Your task to perform on an android device: Open Google Image 0: 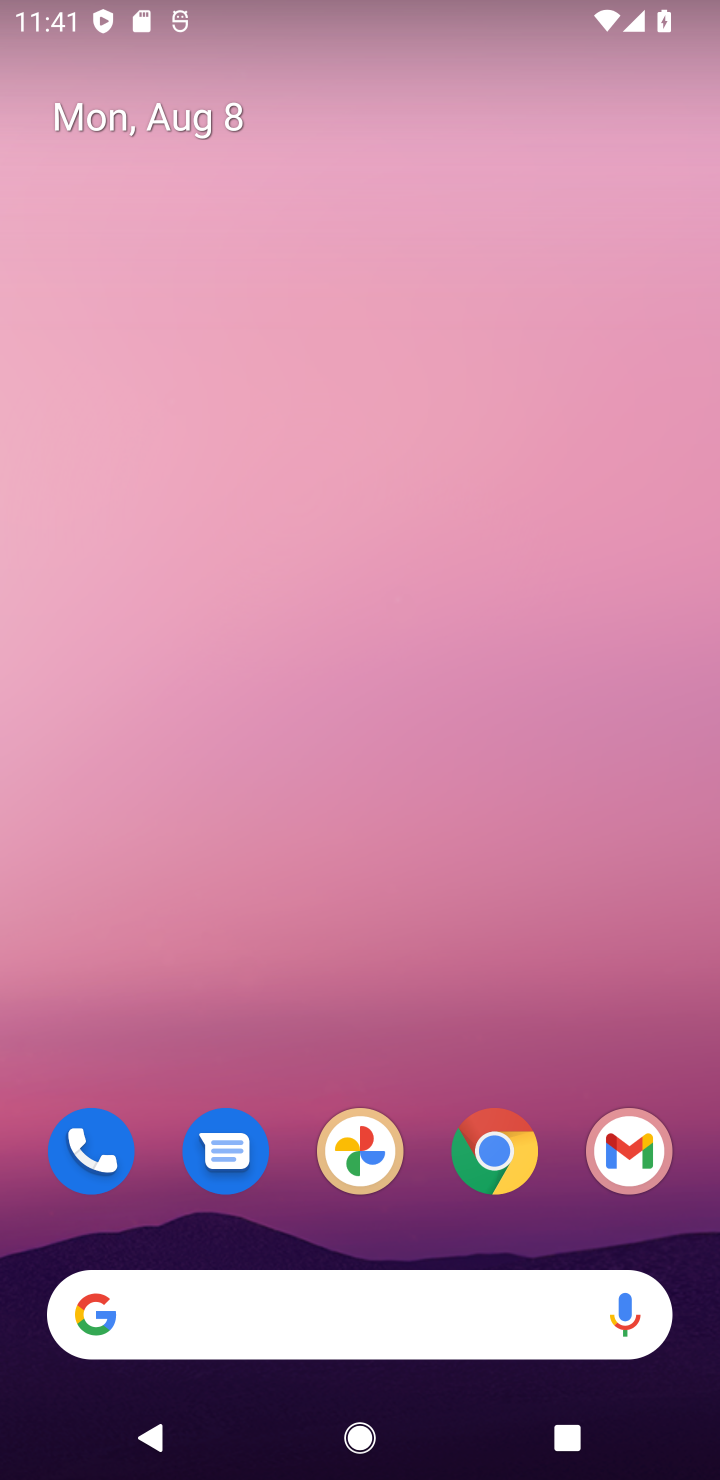
Step 0: drag from (467, 1194) to (266, 319)
Your task to perform on an android device: Open Google Image 1: 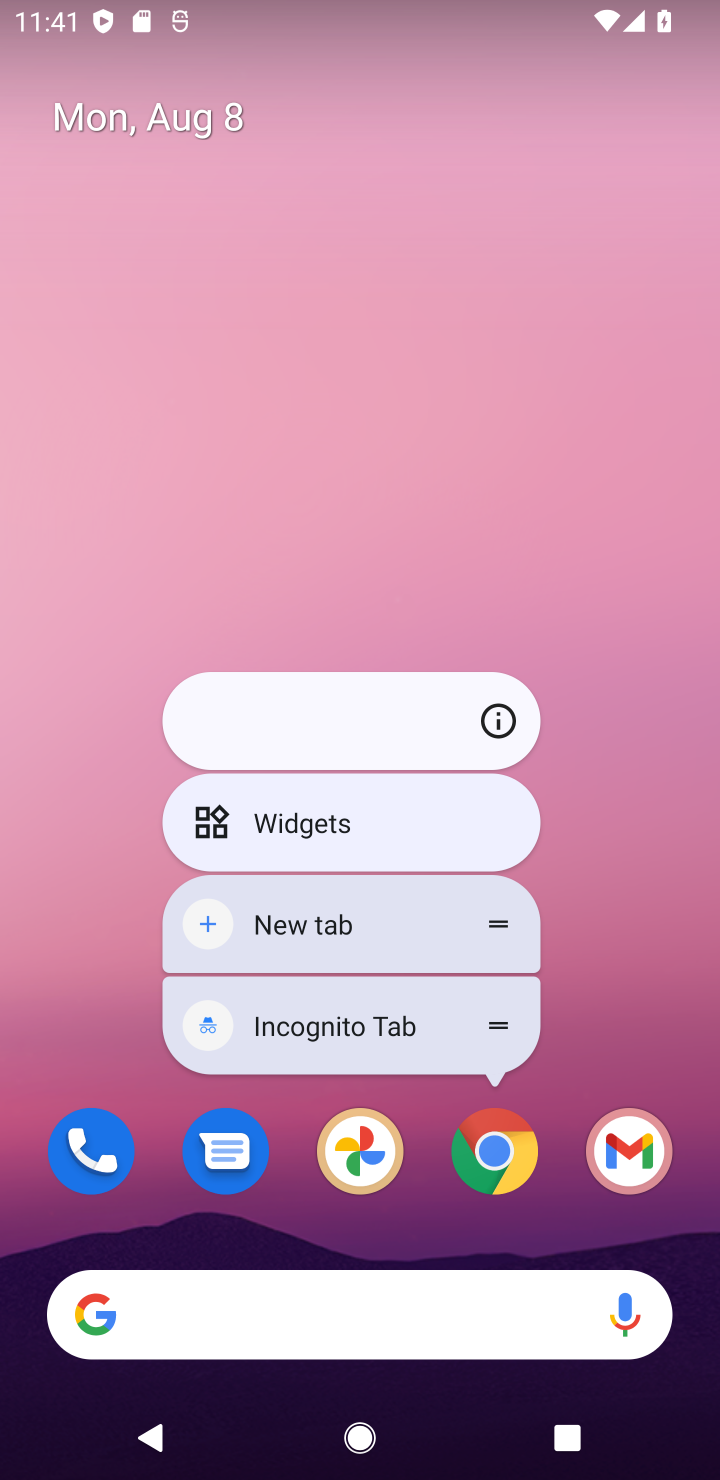
Step 1: drag from (375, 1217) to (252, 573)
Your task to perform on an android device: Open Google Image 2: 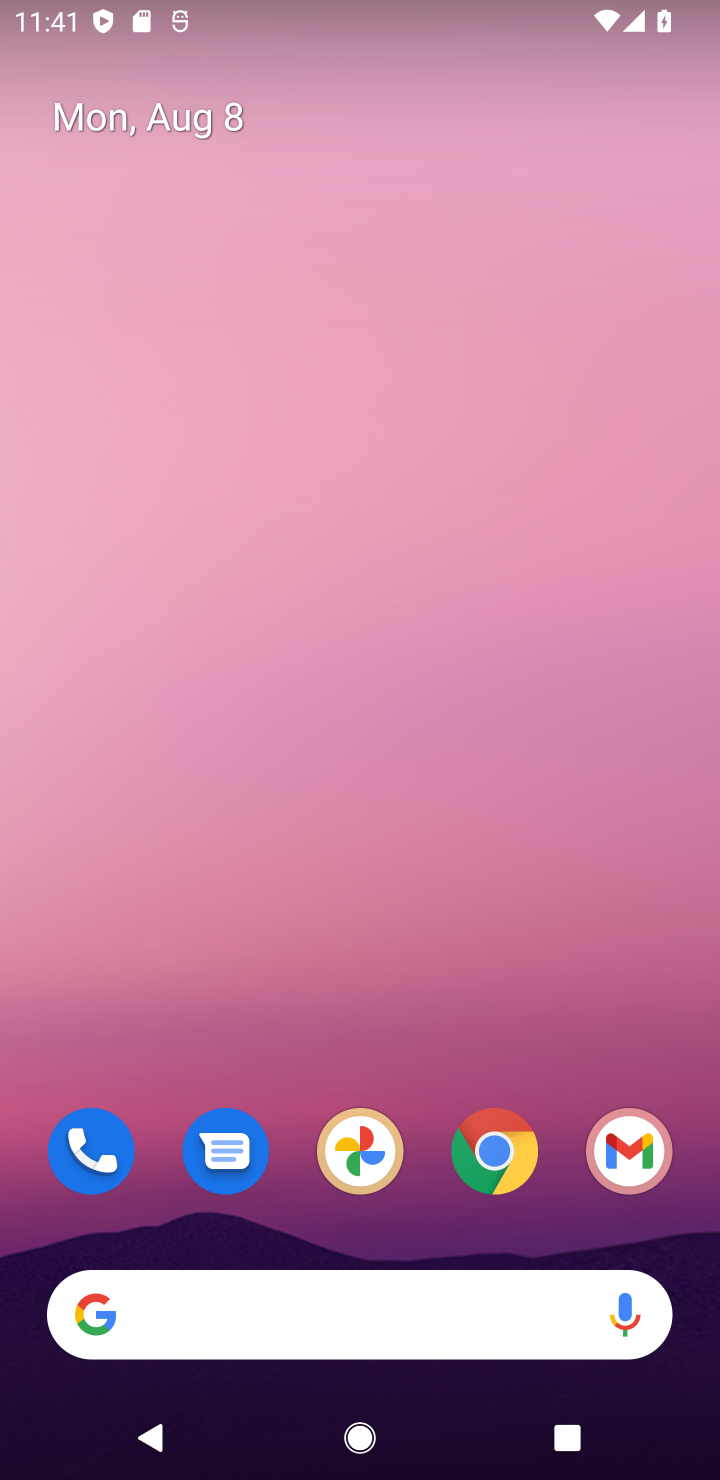
Step 2: drag from (352, 1193) to (202, 408)
Your task to perform on an android device: Open Google Image 3: 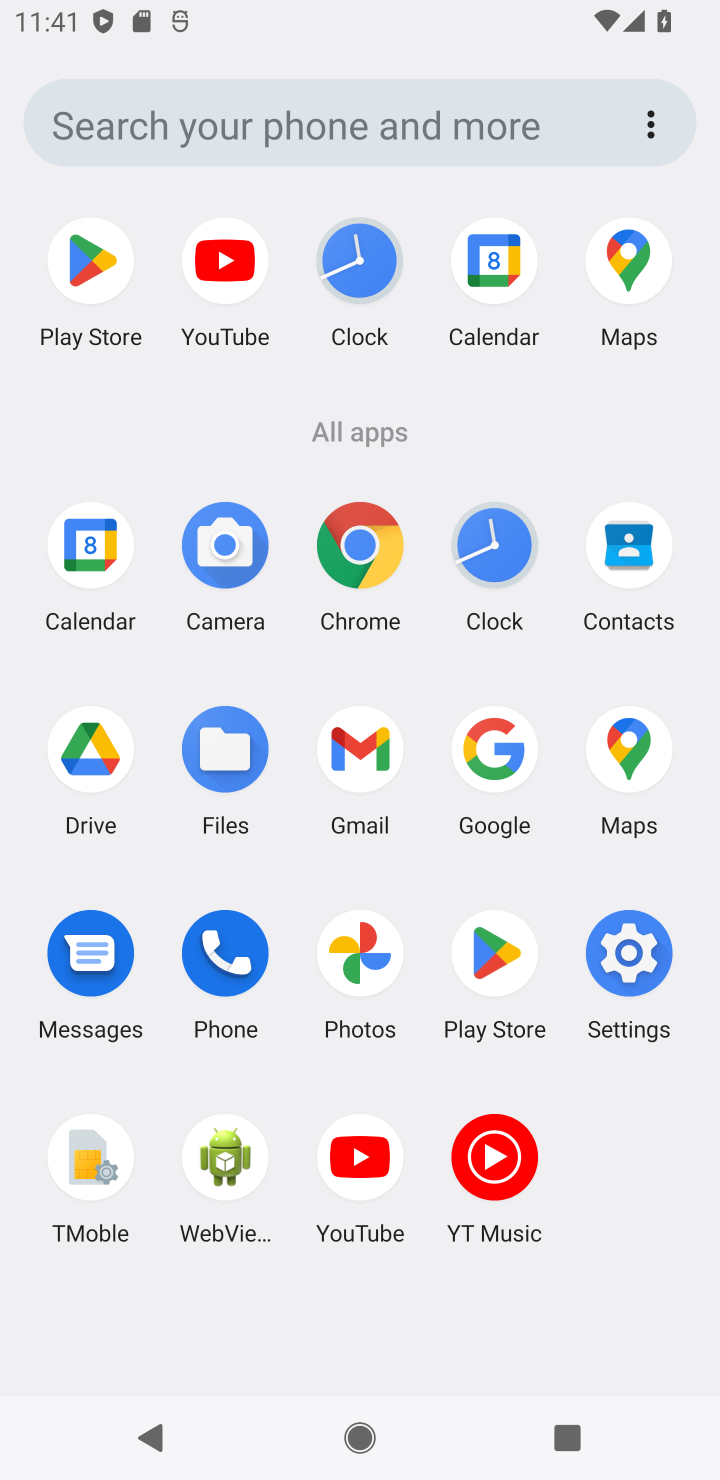
Step 3: click (466, 746)
Your task to perform on an android device: Open Google Image 4: 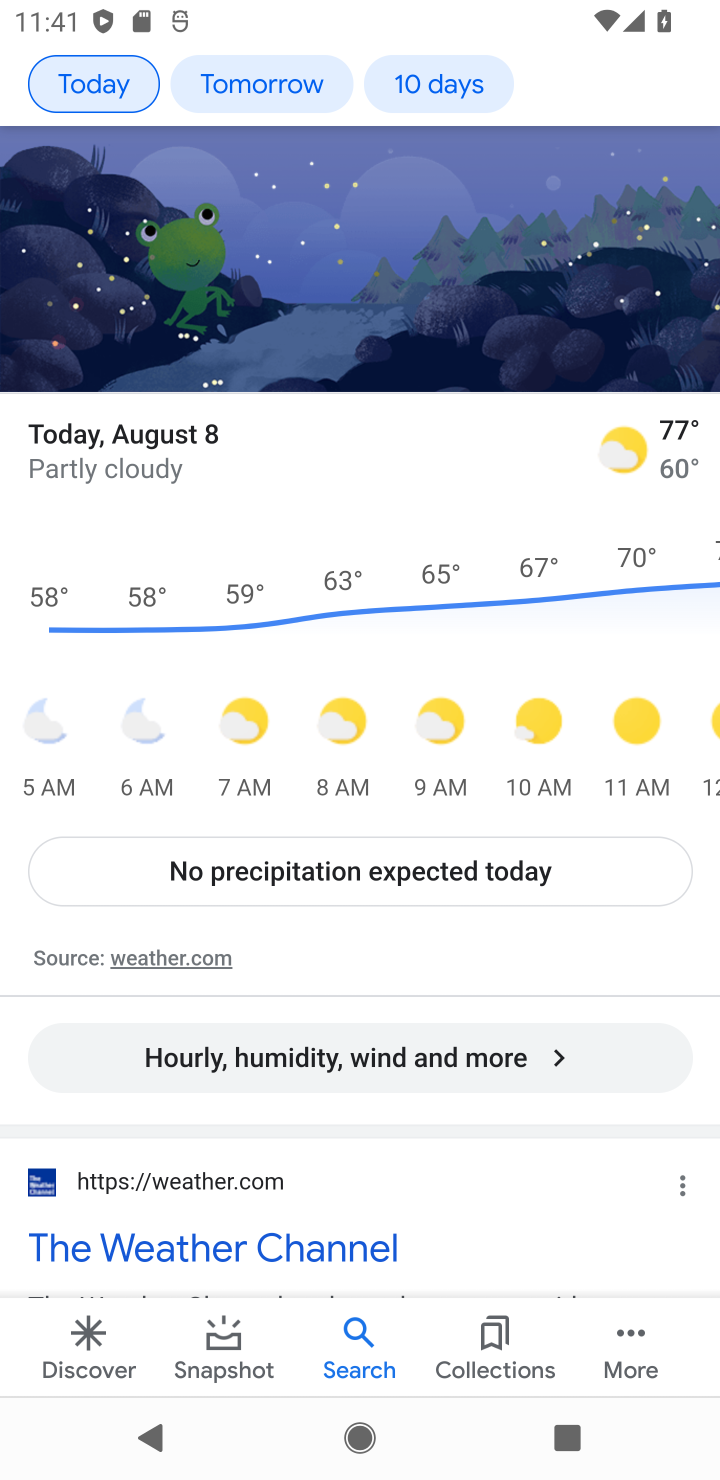
Step 4: task complete